Your task to perform on an android device: stop showing notifications on the lock screen Image 0: 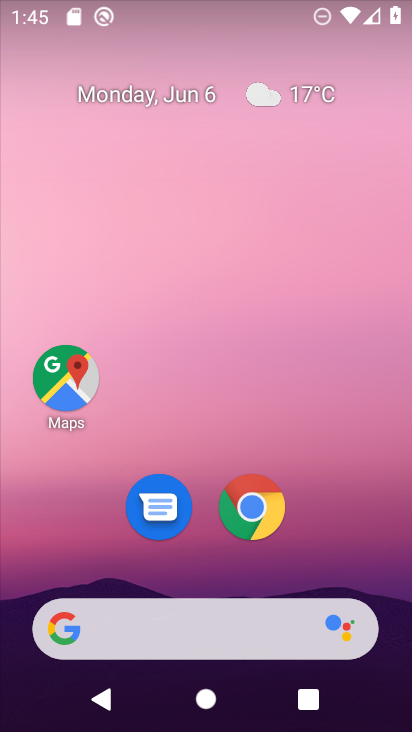
Step 0: drag from (216, 642) to (194, 125)
Your task to perform on an android device: stop showing notifications on the lock screen Image 1: 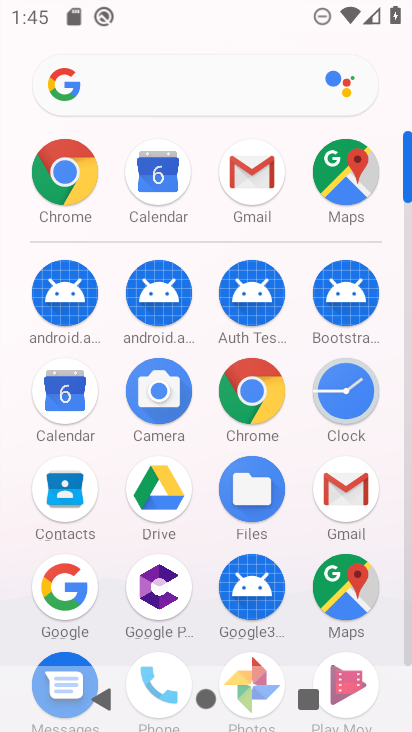
Step 1: drag from (212, 523) to (229, 273)
Your task to perform on an android device: stop showing notifications on the lock screen Image 2: 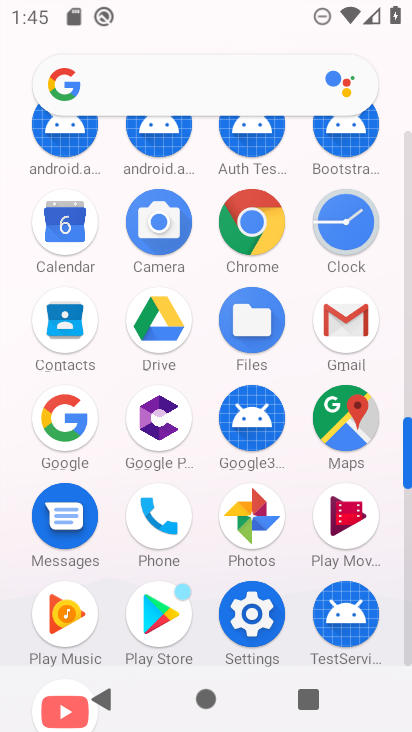
Step 2: click (234, 594)
Your task to perform on an android device: stop showing notifications on the lock screen Image 3: 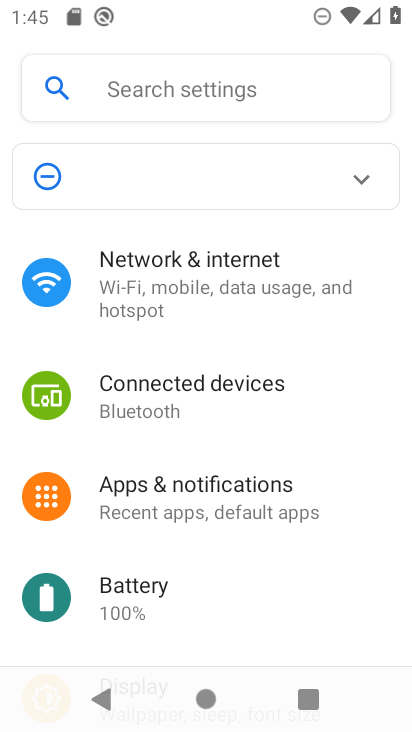
Step 3: click (161, 103)
Your task to perform on an android device: stop showing notifications on the lock screen Image 4: 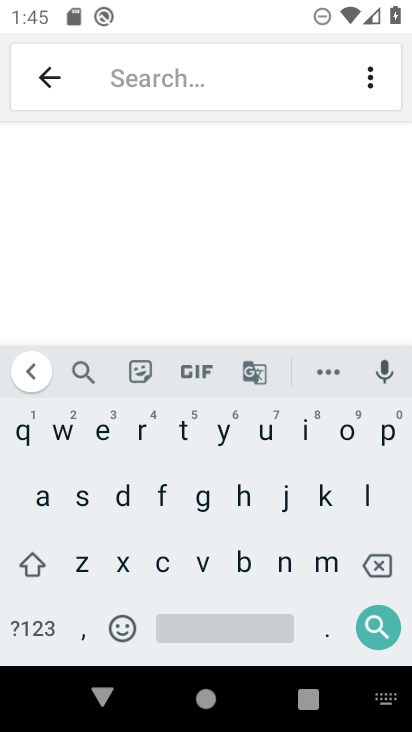
Step 4: click (286, 561)
Your task to perform on an android device: stop showing notifications on the lock screen Image 5: 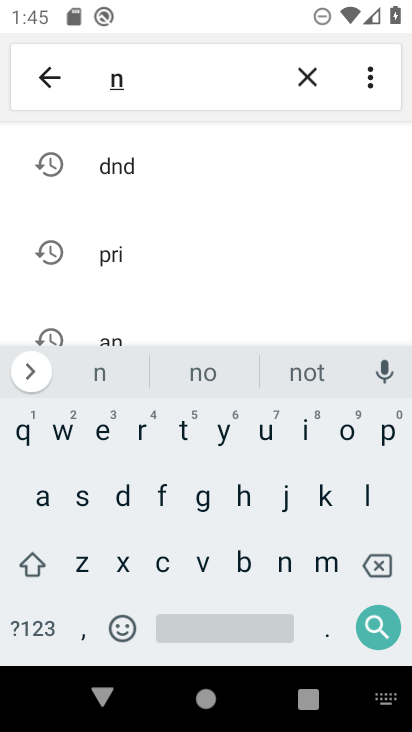
Step 5: click (346, 427)
Your task to perform on an android device: stop showing notifications on the lock screen Image 6: 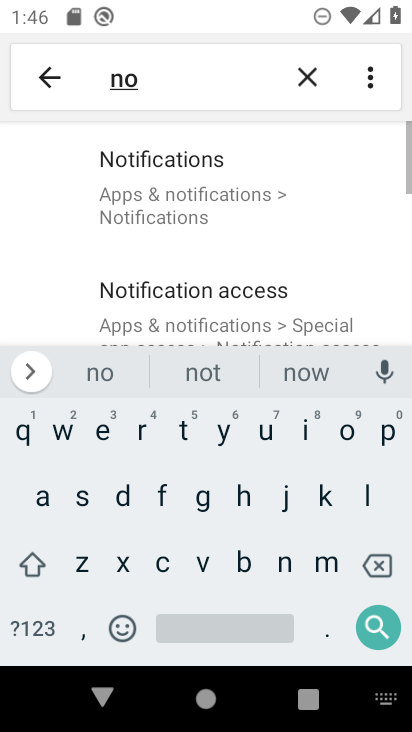
Step 6: click (155, 164)
Your task to perform on an android device: stop showing notifications on the lock screen Image 7: 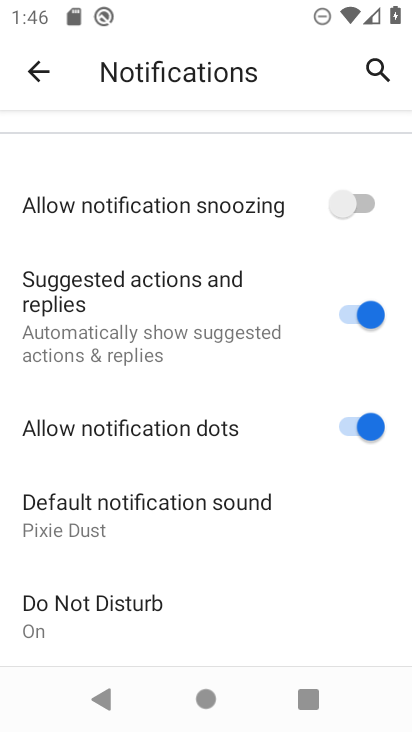
Step 7: drag from (137, 260) to (157, 462)
Your task to perform on an android device: stop showing notifications on the lock screen Image 8: 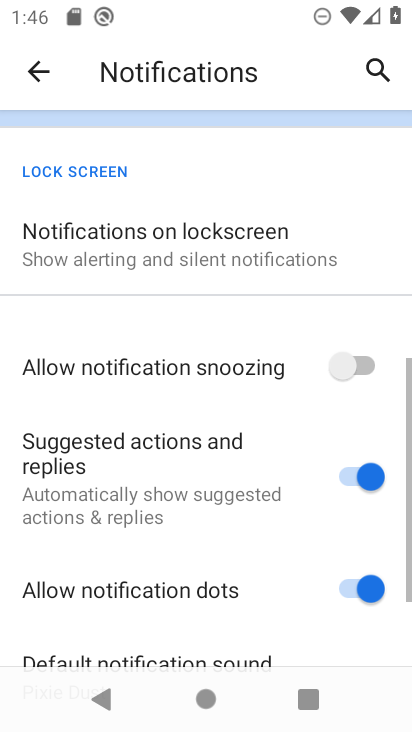
Step 8: click (163, 249)
Your task to perform on an android device: stop showing notifications on the lock screen Image 9: 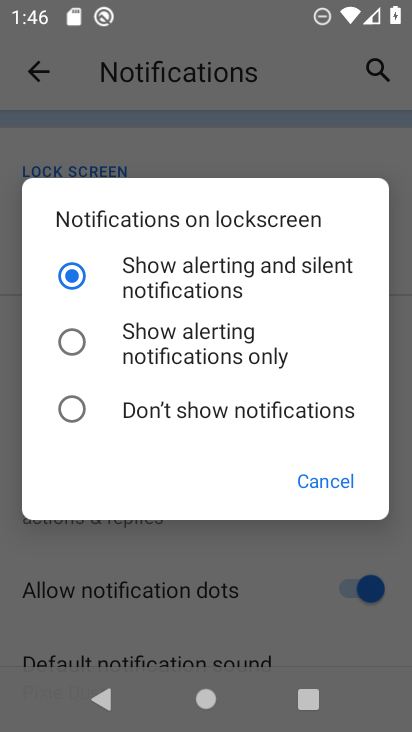
Step 9: click (91, 405)
Your task to perform on an android device: stop showing notifications on the lock screen Image 10: 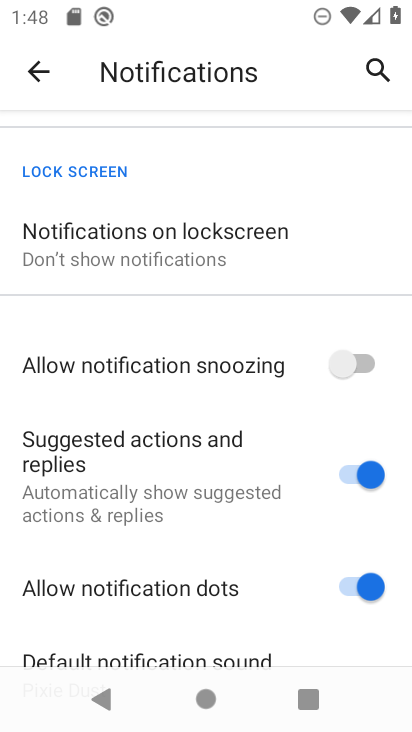
Step 10: task complete